Your task to perform on an android device: Find coffee shops on Maps Image 0: 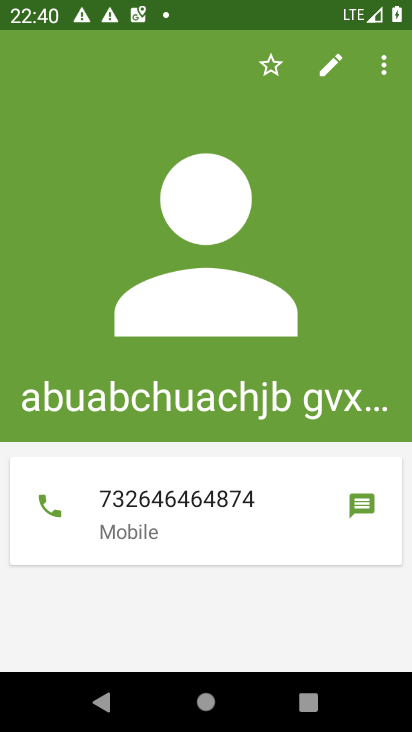
Step 0: press home button
Your task to perform on an android device: Find coffee shops on Maps Image 1: 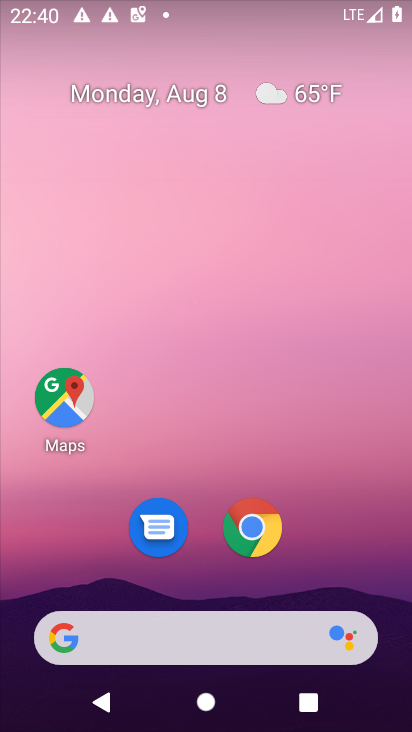
Step 1: click (72, 391)
Your task to perform on an android device: Find coffee shops on Maps Image 2: 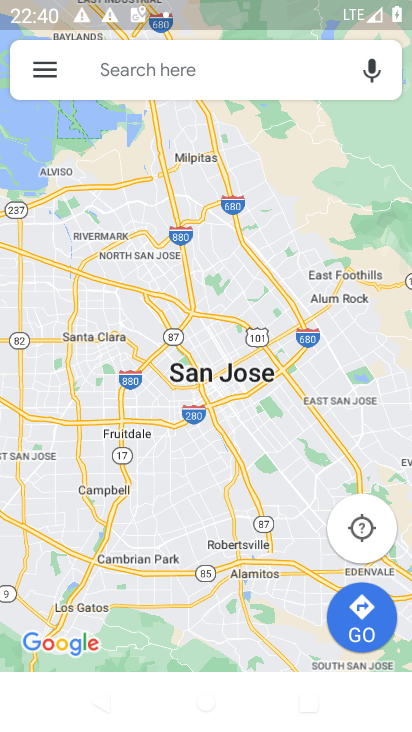
Step 2: click (185, 74)
Your task to perform on an android device: Find coffee shops on Maps Image 3: 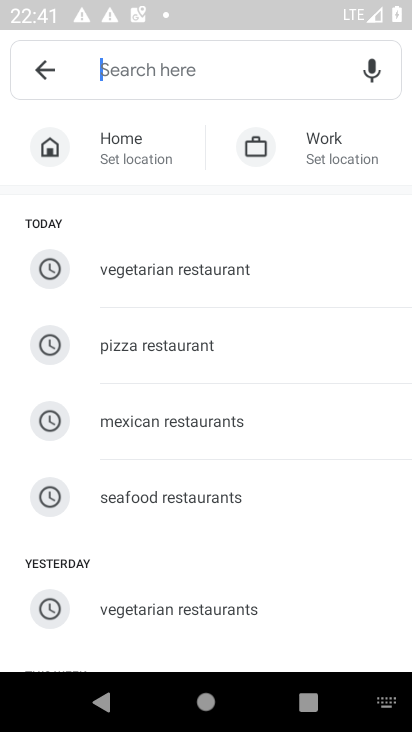
Step 3: type "coffee shops"
Your task to perform on an android device: Find coffee shops on Maps Image 4: 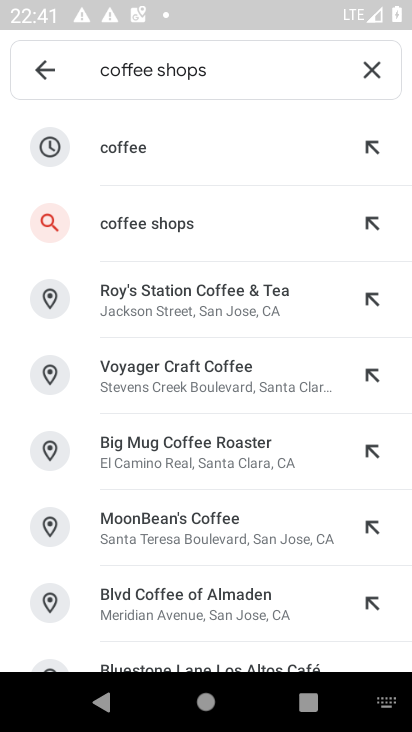
Step 4: click (119, 222)
Your task to perform on an android device: Find coffee shops on Maps Image 5: 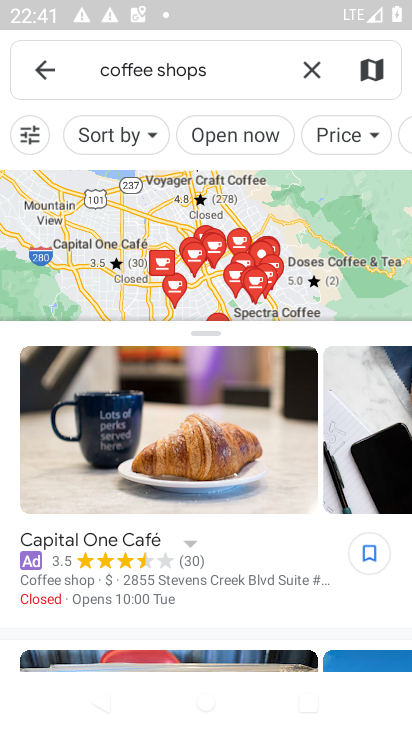
Step 5: task complete